Your task to perform on an android device: Search for seafood restaurants on Google Maps Image 0: 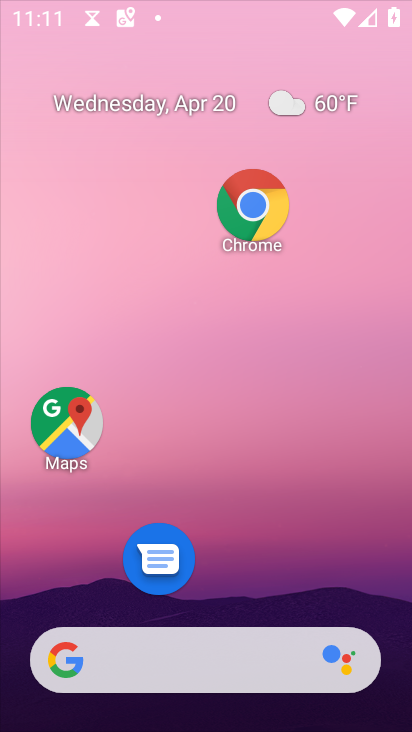
Step 0: drag from (268, 440) to (333, 79)
Your task to perform on an android device: Search for seafood restaurants on Google Maps Image 1: 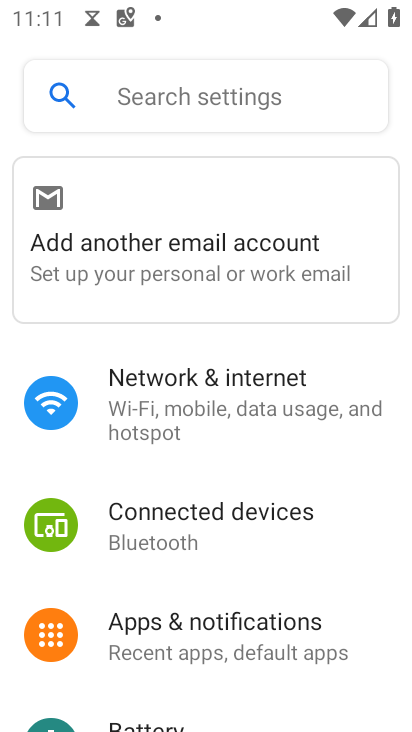
Step 1: drag from (317, 625) to (336, 134)
Your task to perform on an android device: Search for seafood restaurants on Google Maps Image 2: 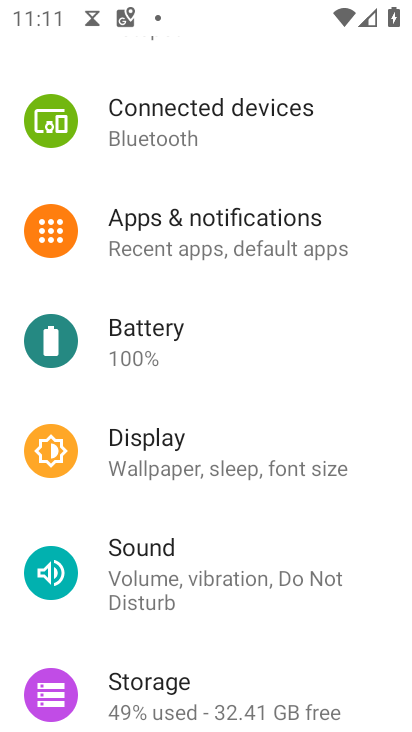
Step 2: drag from (179, 227) to (190, 702)
Your task to perform on an android device: Search for seafood restaurants on Google Maps Image 3: 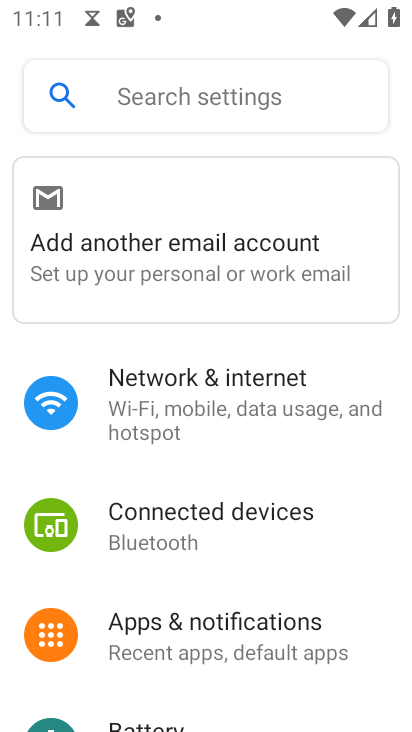
Step 3: drag from (267, 669) to (268, 205)
Your task to perform on an android device: Search for seafood restaurants on Google Maps Image 4: 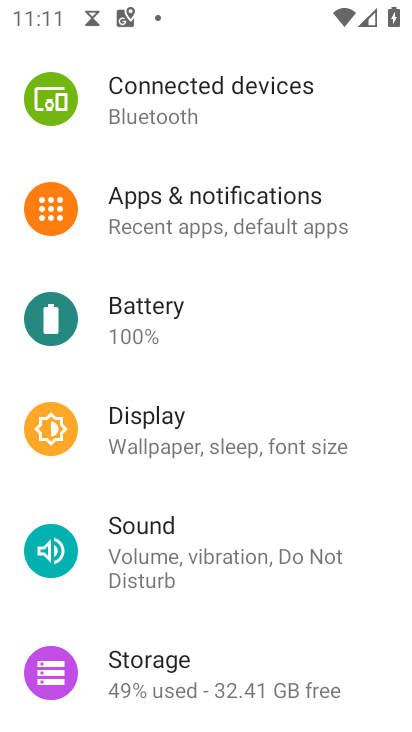
Step 4: press home button
Your task to perform on an android device: Search for seafood restaurants on Google Maps Image 5: 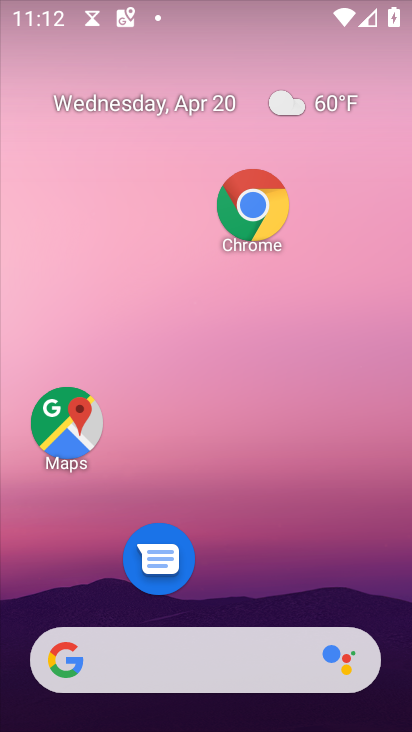
Step 5: drag from (201, 724) to (210, 128)
Your task to perform on an android device: Search for seafood restaurants on Google Maps Image 6: 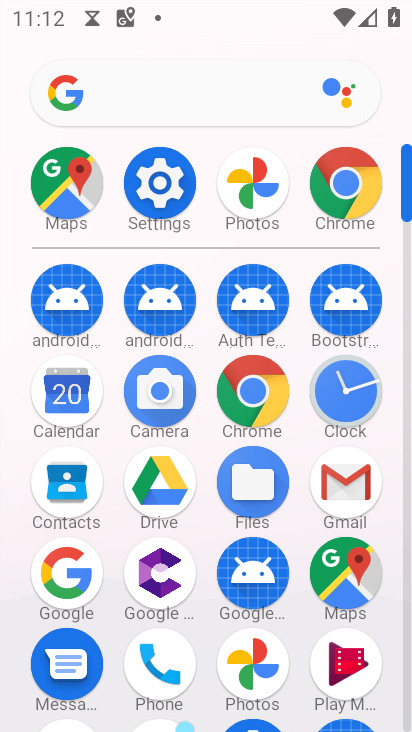
Step 6: drag from (294, 642) to (301, 238)
Your task to perform on an android device: Search for seafood restaurants on Google Maps Image 7: 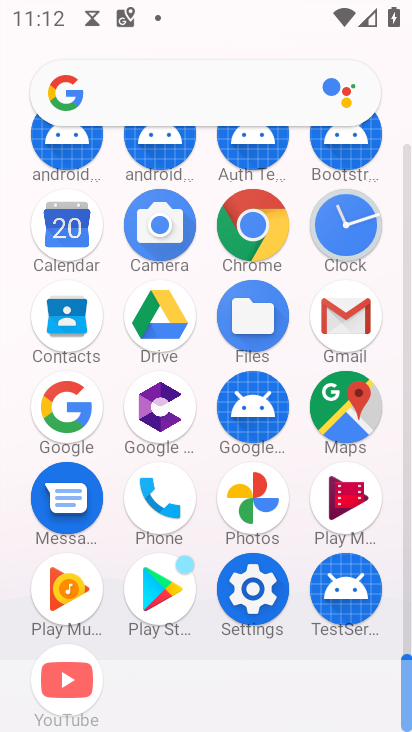
Step 7: click (340, 412)
Your task to perform on an android device: Search for seafood restaurants on Google Maps Image 8: 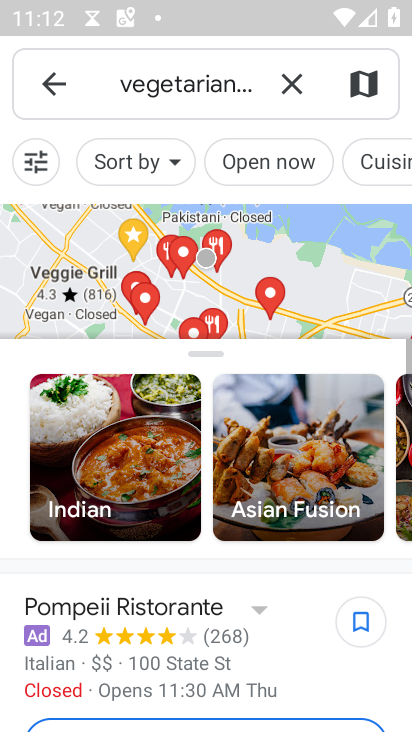
Step 8: click (303, 86)
Your task to perform on an android device: Search for seafood restaurants on Google Maps Image 9: 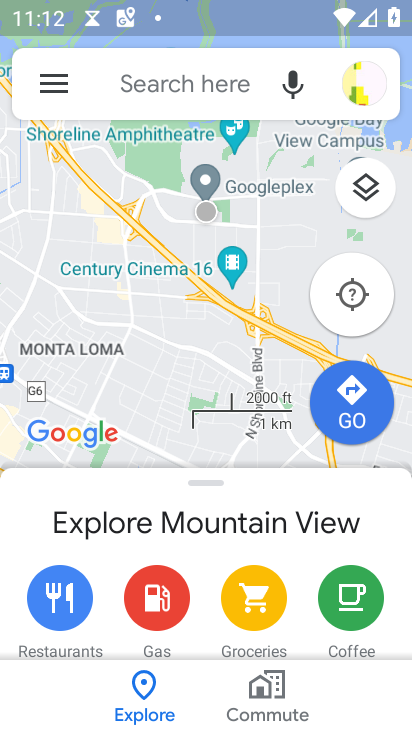
Step 9: click (218, 90)
Your task to perform on an android device: Search for seafood restaurants on Google Maps Image 10: 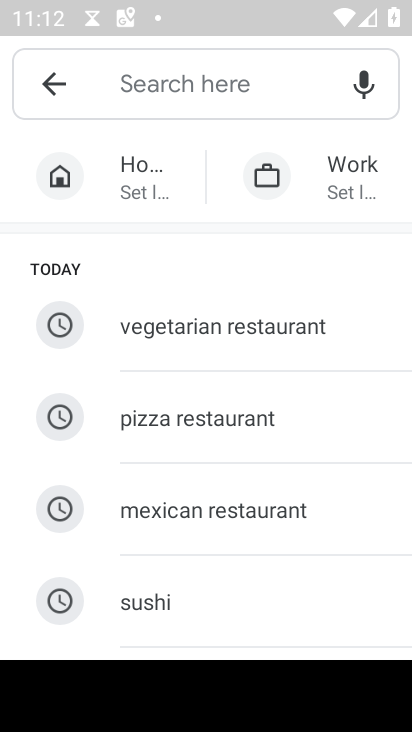
Step 10: type "seafood restaurannt"
Your task to perform on an android device: Search for seafood restaurants on Google Maps Image 11: 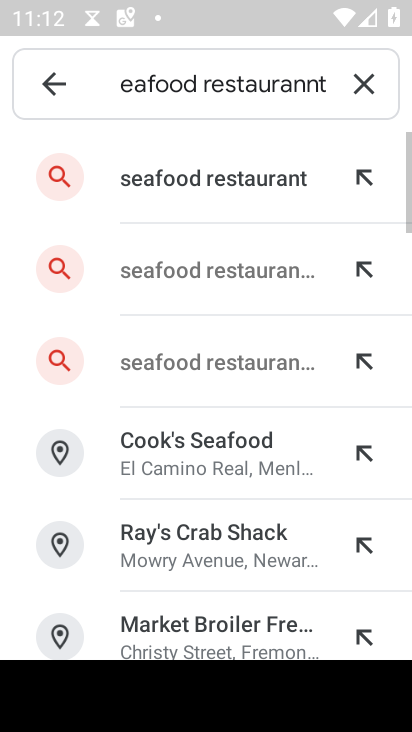
Step 11: click (167, 178)
Your task to perform on an android device: Search for seafood restaurants on Google Maps Image 12: 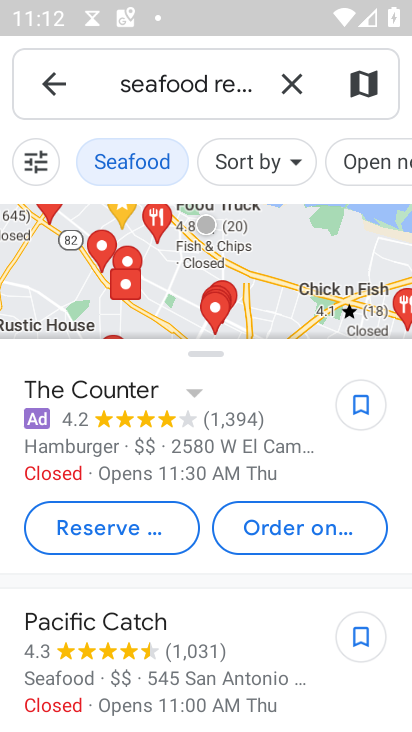
Step 12: task complete